Your task to perform on an android device: Go to Google maps Image 0: 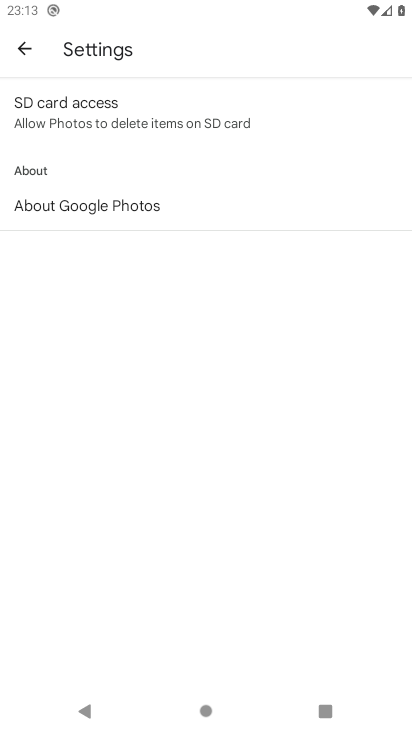
Step 0: press home button
Your task to perform on an android device: Go to Google maps Image 1: 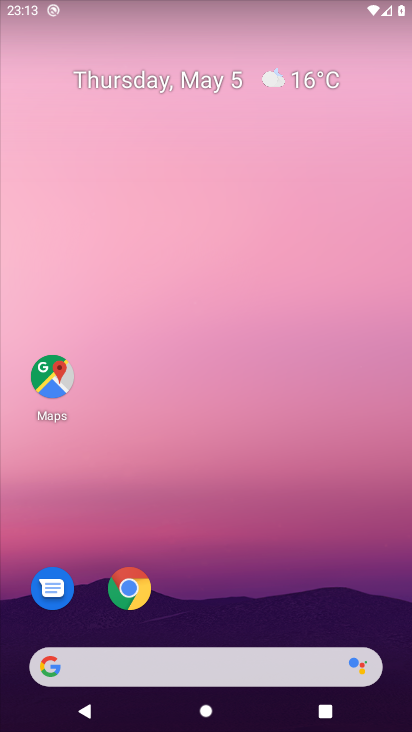
Step 1: click (66, 385)
Your task to perform on an android device: Go to Google maps Image 2: 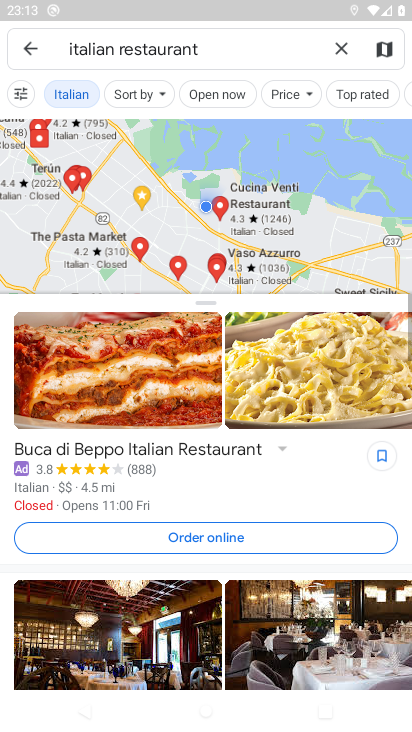
Step 2: task complete